Your task to perform on an android device: turn off priority inbox in the gmail app Image 0: 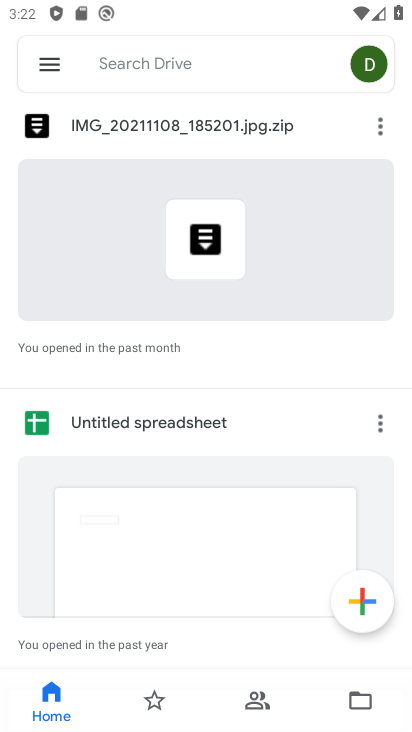
Step 0: press home button
Your task to perform on an android device: turn off priority inbox in the gmail app Image 1: 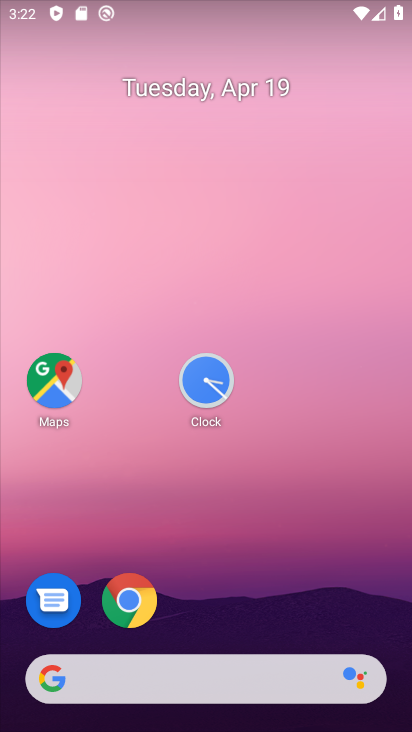
Step 1: drag from (195, 443) to (144, 97)
Your task to perform on an android device: turn off priority inbox in the gmail app Image 2: 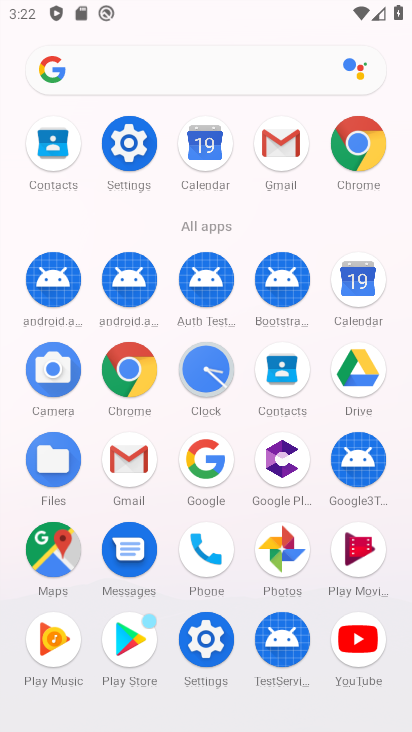
Step 2: click (273, 142)
Your task to perform on an android device: turn off priority inbox in the gmail app Image 3: 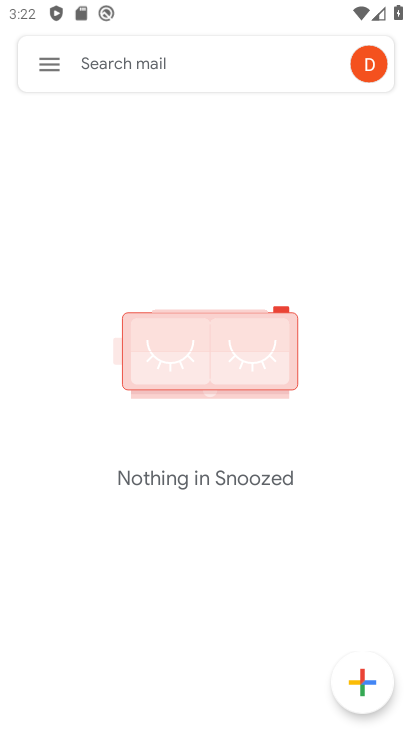
Step 3: click (41, 58)
Your task to perform on an android device: turn off priority inbox in the gmail app Image 4: 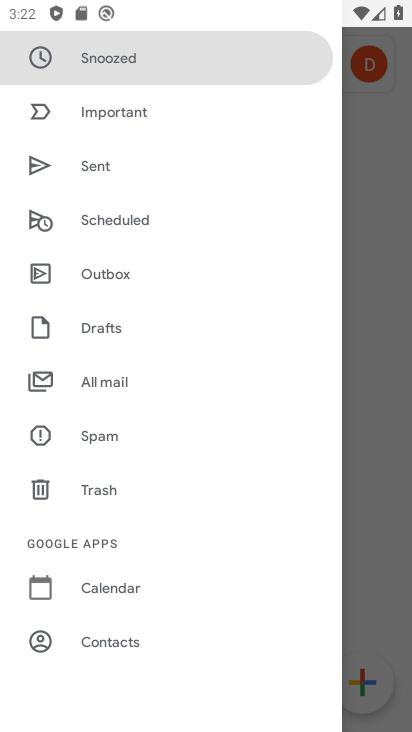
Step 4: drag from (207, 525) to (174, 299)
Your task to perform on an android device: turn off priority inbox in the gmail app Image 5: 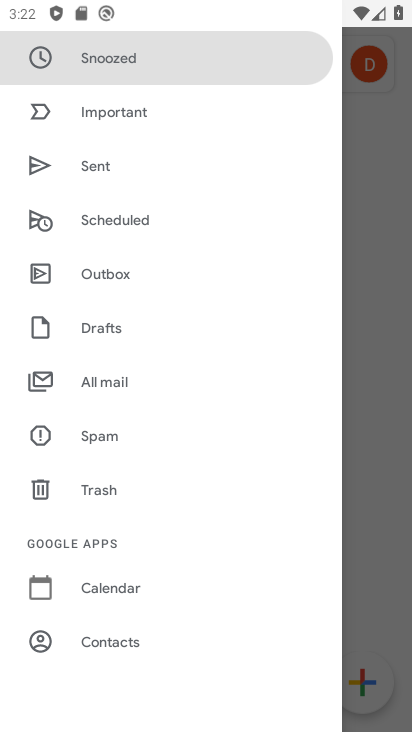
Step 5: drag from (233, 528) to (169, 125)
Your task to perform on an android device: turn off priority inbox in the gmail app Image 6: 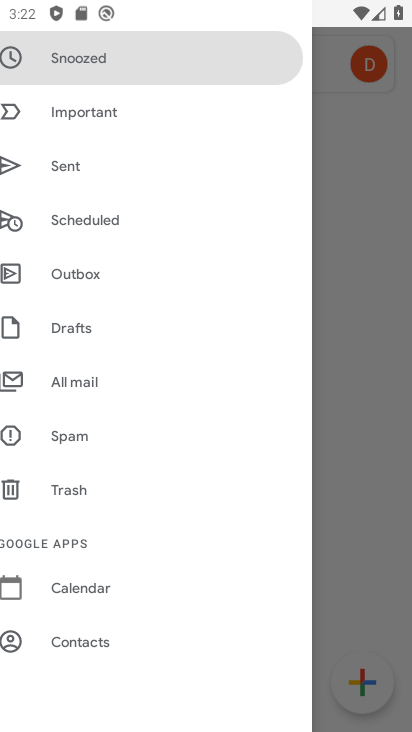
Step 6: drag from (197, 376) to (160, 191)
Your task to perform on an android device: turn off priority inbox in the gmail app Image 7: 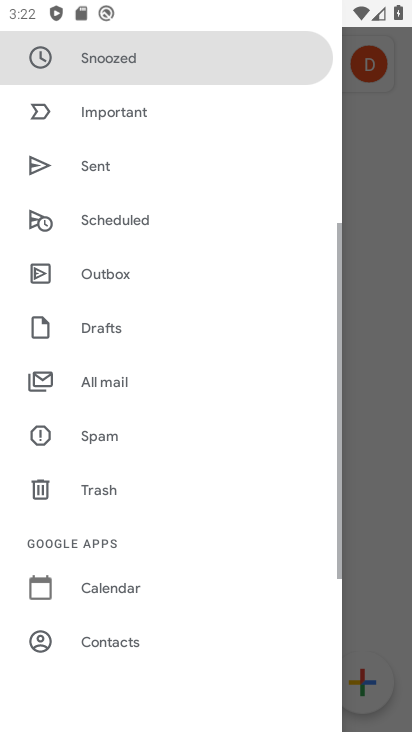
Step 7: drag from (123, 511) to (123, 241)
Your task to perform on an android device: turn off priority inbox in the gmail app Image 8: 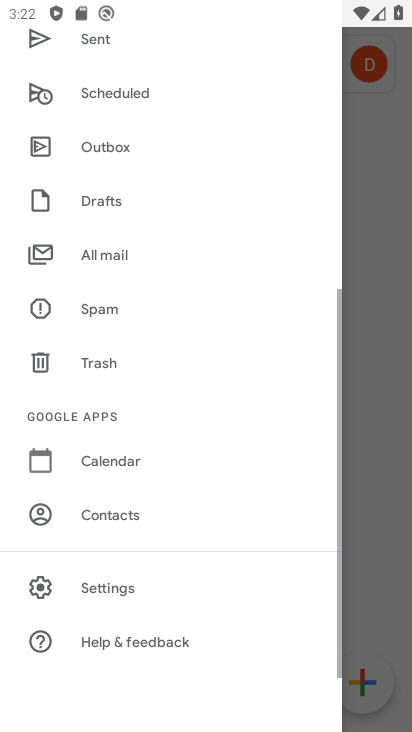
Step 8: drag from (167, 567) to (154, 69)
Your task to perform on an android device: turn off priority inbox in the gmail app Image 9: 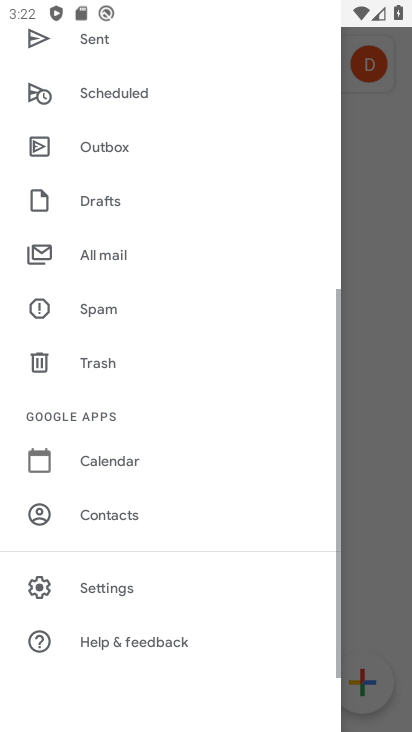
Step 9: drag from (153, 429) to (145, 139)
Your task to perform on an android device: turn off priority inbox in the gmail app Image 10: 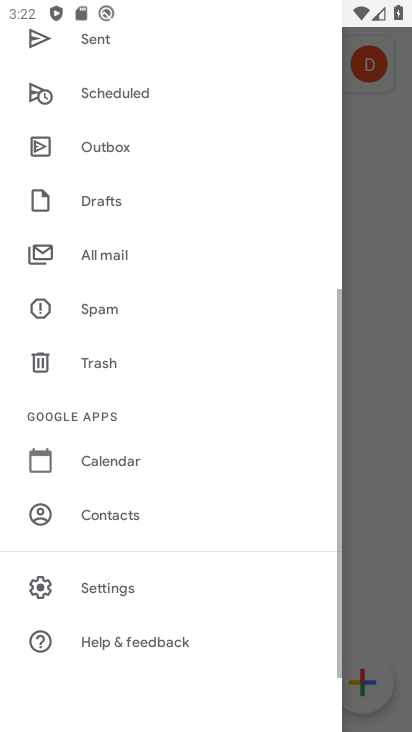
Step 10: click (111, 580)
Your task to perform on an android device: turn off priority inbox in the gmail app Image 11: 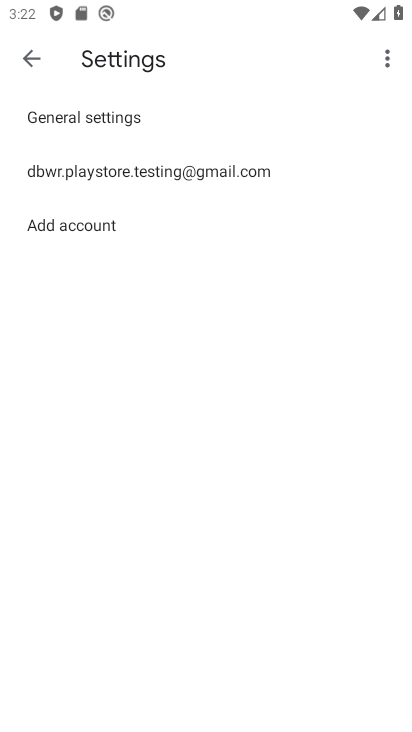
Step 11: click (104, 168)
Your task to perform on an android device: turn off priority inbox in the gmail app Image 12: 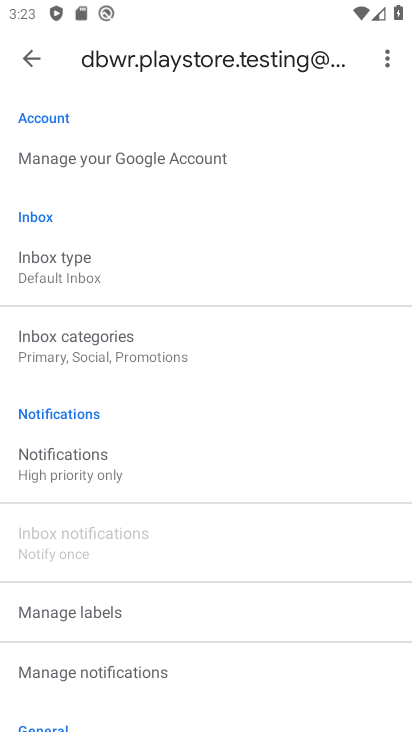
Step 12: click (64, 265)
Your task to perform on an android device: turn off priority inbox in the gmail app Image 13: 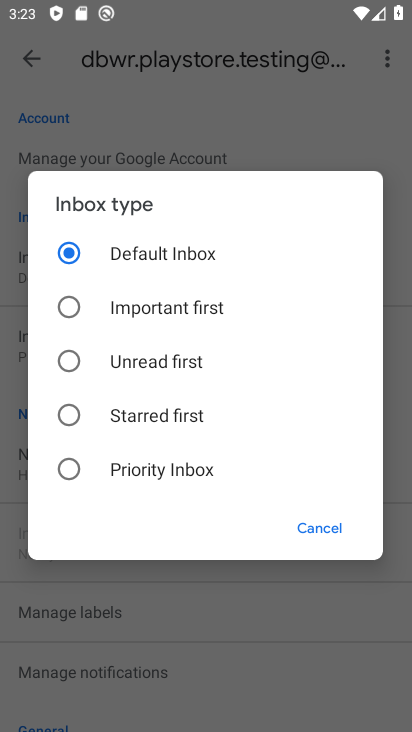
Step 13: click (77, 468)
Your task to perform on an android device: turn off priority inbox in the gmail app Image 14: 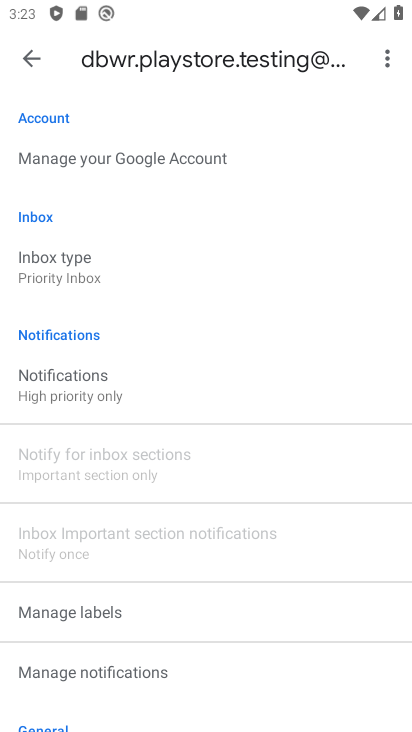
Step 14: task complete